Your task to perform on an android device: open the mobile data screen to see how much data has been used Image 0: 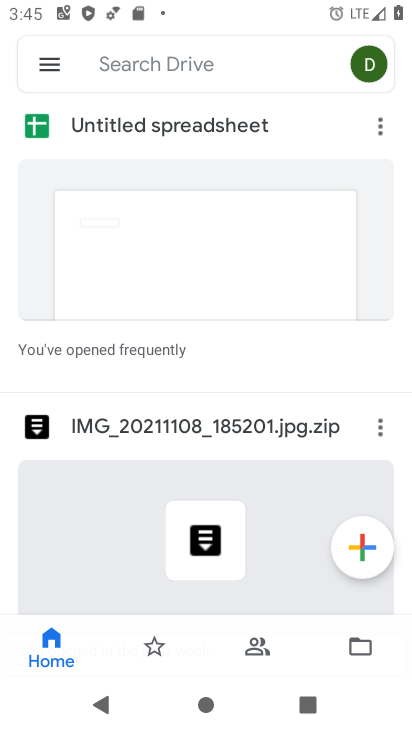
Step 0: press back button
Your task to perform on an android device: open the mobile data screen to see how much data has been used Image 1: 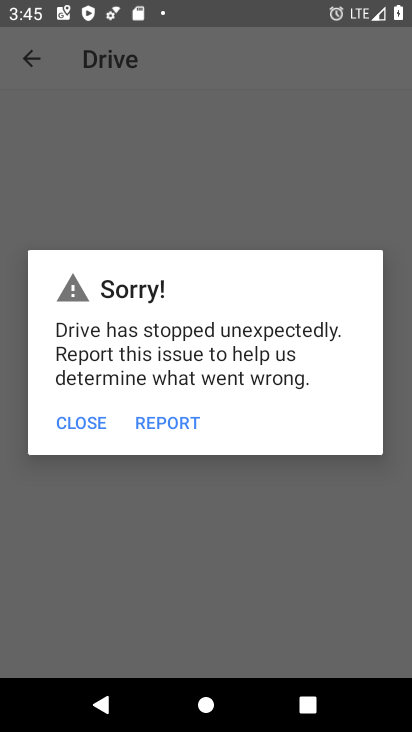
Step 1: press home button
Your task to perform on an android device: open the mobile data screen to see how much data has been used Image 2: 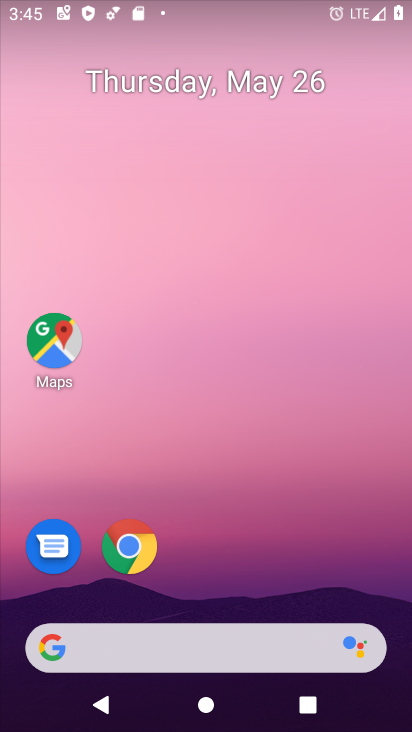
Step 2: drag from (271, 569) to (296, 0)
Your task to perform on an android device: open the mobile data screen to see how much data has been used Image 3: 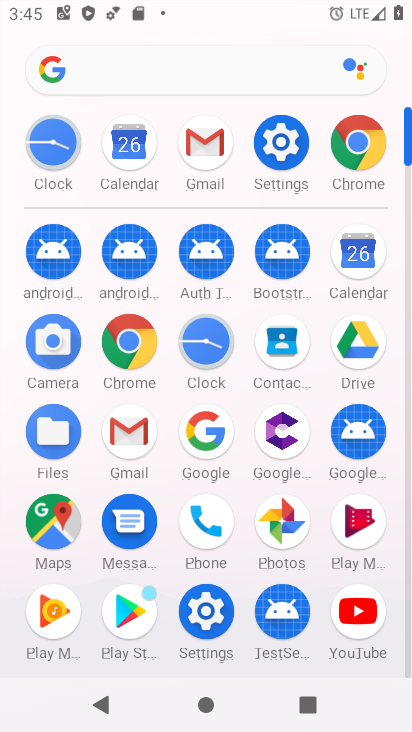
Step 3: click (281, 147)
Your task to perform on an android device: open the mobile data screen to see how much data has been used Image 4: 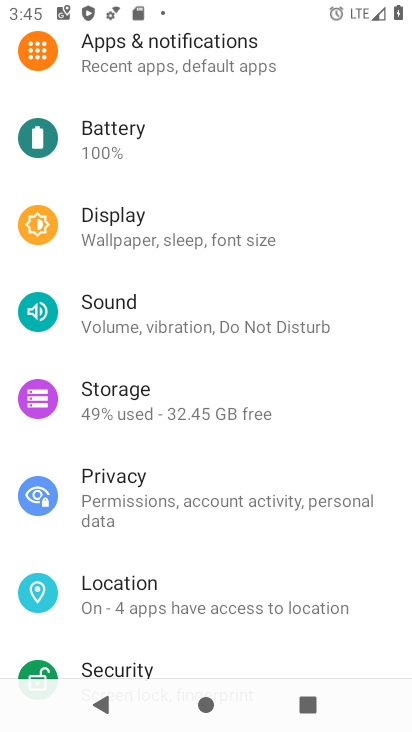
Step 4: drag from (239, 181) to (204, 657)
Your task to perform on an android device: open the mobile data screen to see how much data has been used Image 5: 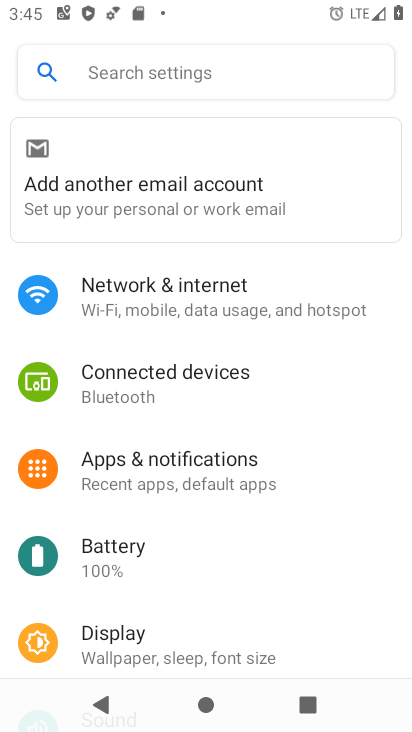
Step 5: click (165, 309)
Your task to perform on an android device: open the mobile data screen to see how much data has been used Image 6: 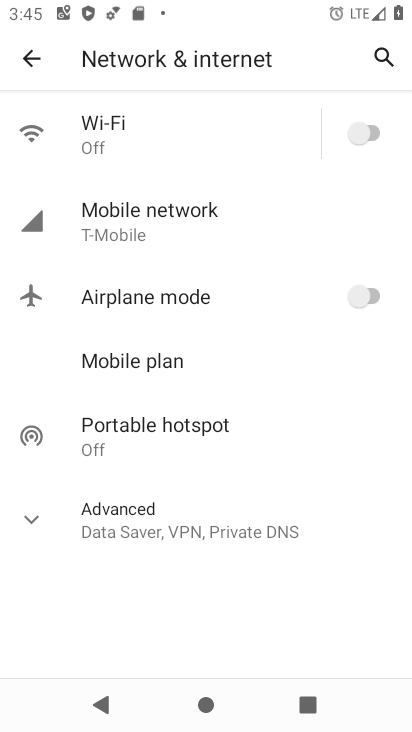
Step 6: click (138, 234)
Your task to perform on an android device: open the mobile data screen to see how much data has been used Image 7: 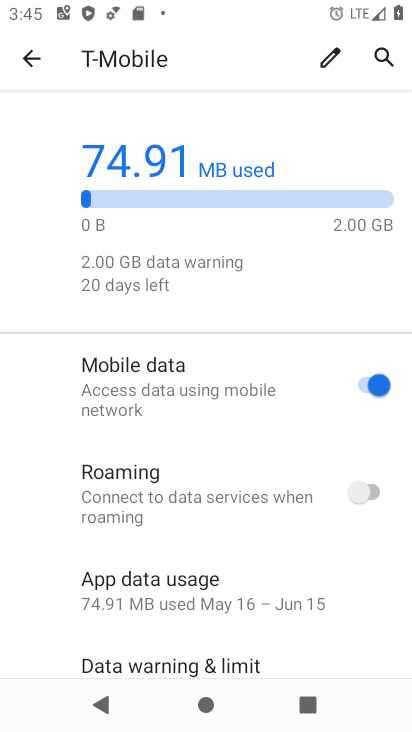
Step 7: click (153, 590)
Your task to perform on an android device: open the mobile data screen to see how much data has been used Image 8: 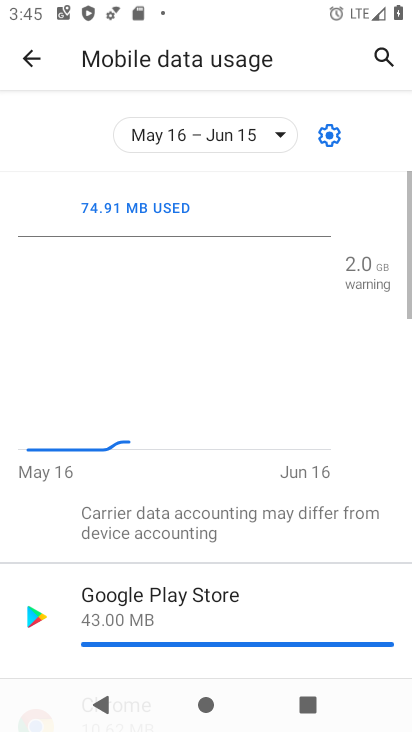
Step 8: task complete